Your task to perform on an android device: Search for Mexican restaurants on Maps Image 0: 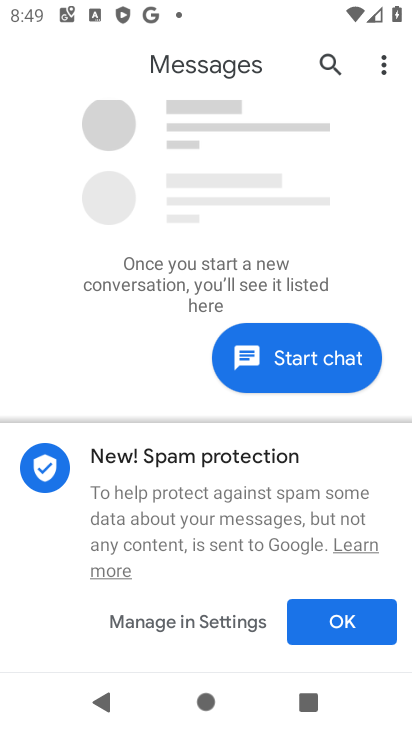
Step 0: press home button
Your task to perform on an android device: Search for Mexican restaurants on Maps Image 1: 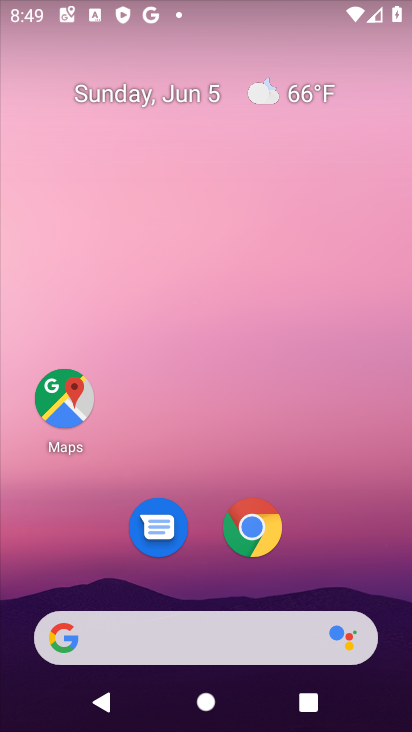
Step 1: click (62, 410)
Your task to perform on an android device: Search for Mexican restaurants on Maps Image 2: 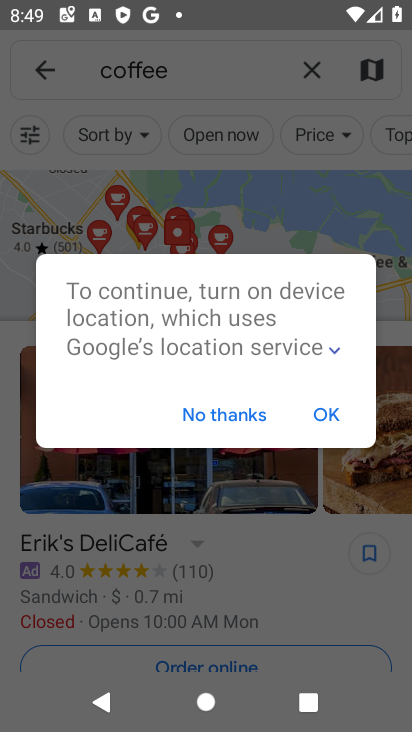
Step 2: click (333, 410)
Your task to perform on an android device: Search for Mexican restaurants on Maps Image 3: 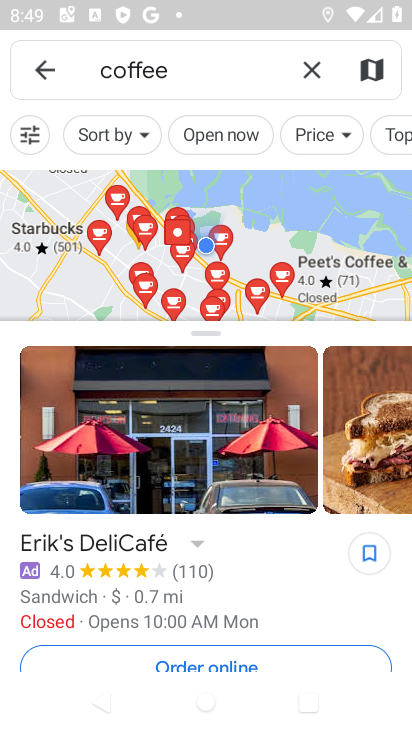
Step 3: click (317, 70)
Your task to perform on an android device: Search for Mexican restaurants on Maps Image 4: 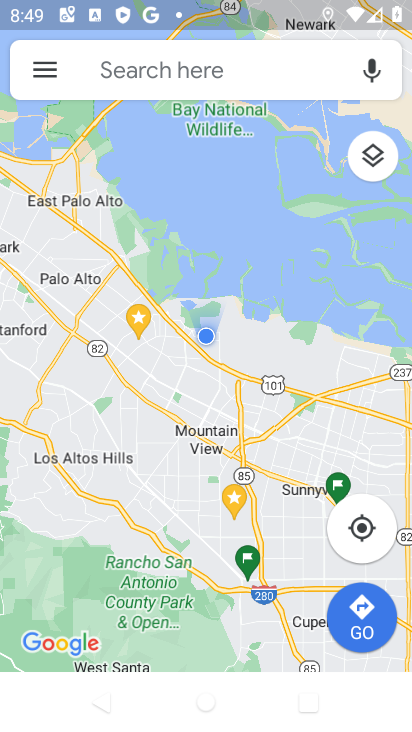
Step 4: click (231, 58)
Your task to perform on an android device: Search for Mexican restaurants on Maps Image 5: 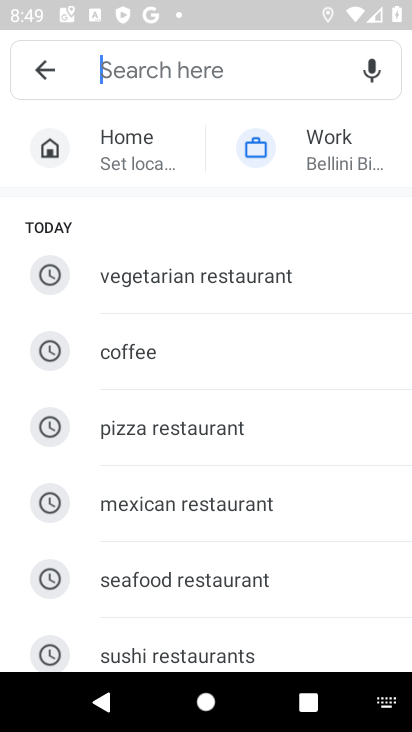
Step 5: click (234, 520)
Your task to perform on an android device: Search for Mexican restaurants on Maps Image 6: 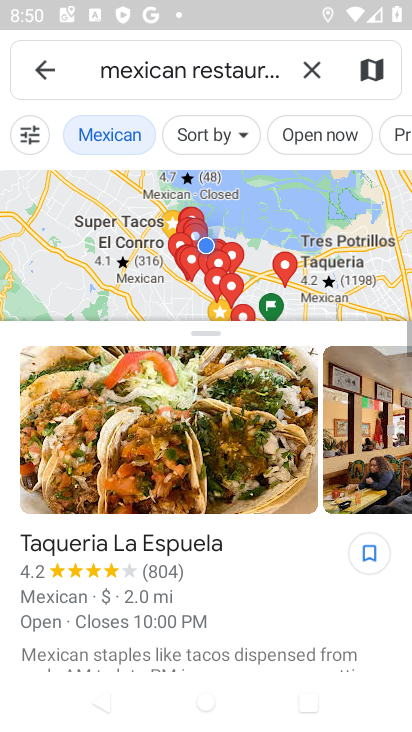
Step 6: task complete